Your task to perform on an android device: Go to internet settings Image 0: 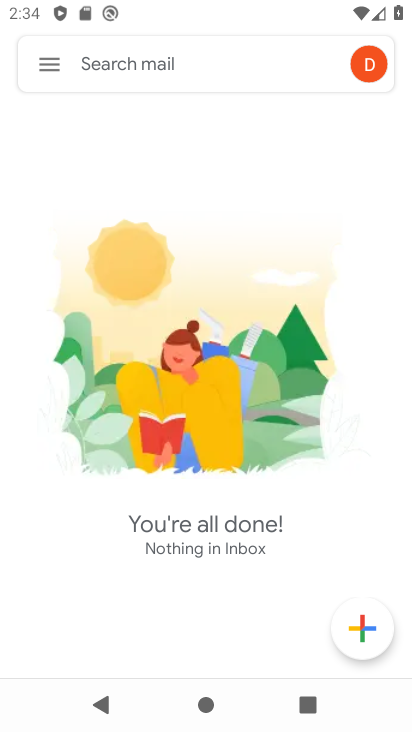
Step 0: press home button
Your task to perform on an android device: Go to internet settings Image 1: 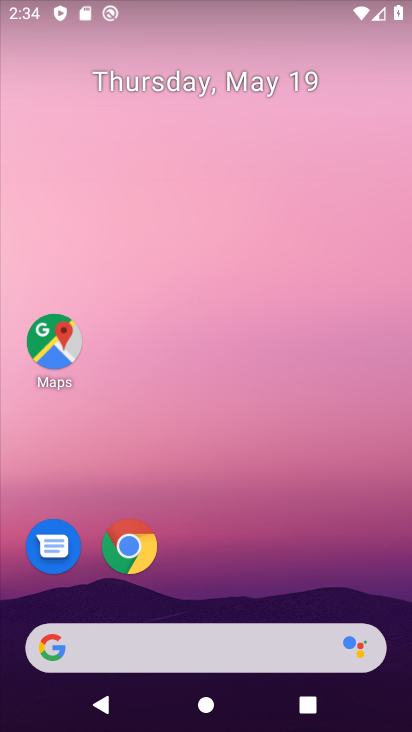
Step 1: drag from (161, 641) to (323, 103)
Your task to perform on an android device: Go to internet settings Image 2: 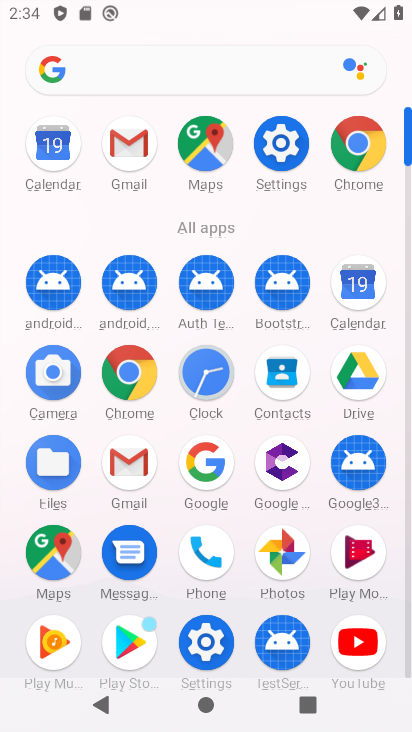
Step 2: click (280, 152)
Your task to perform on an android device: Go to internet settings Image 3: 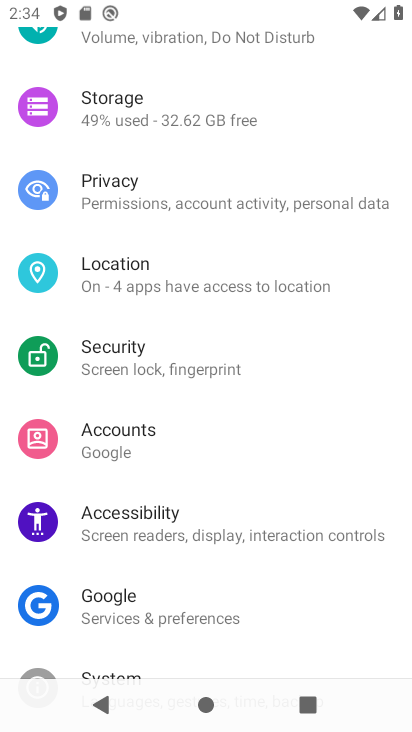
Step 3: drag from (319, 114) to (258, 620)
Your task to perform on an android device: Go to internet settings Image 4: 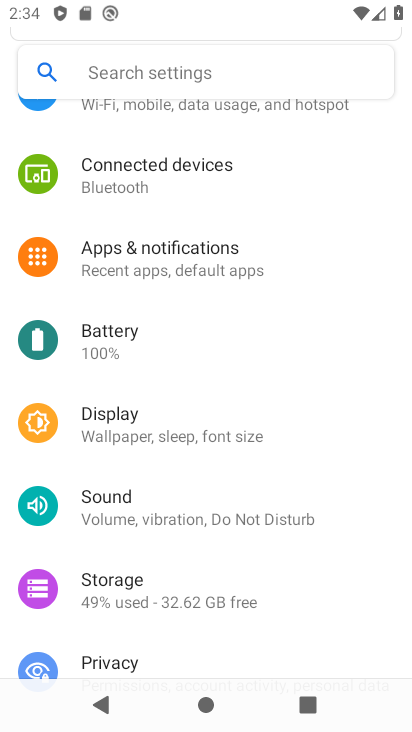
Step 4: drag from (310, 154) to (222, 649)
Your task to perform on an android device: Go to internet settings Image 5: 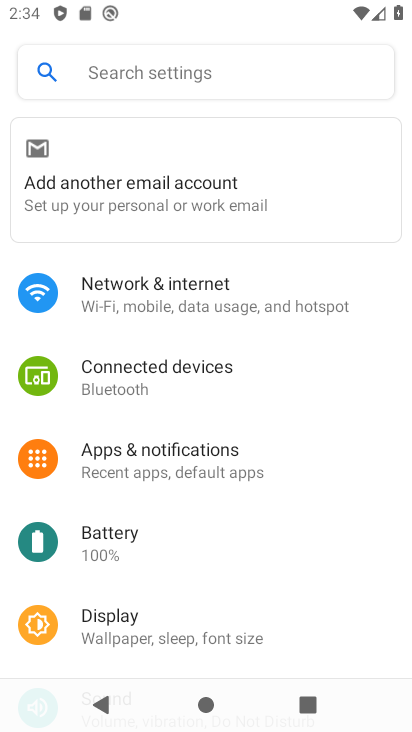
Step 5: click (170, 296)
Your task to perform on an android device: Go to internet settings Image 6: 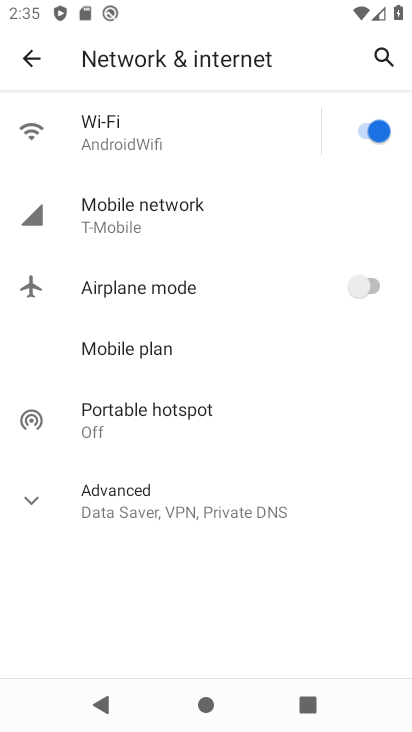
Step 6: task complete